Your task to perform on an android device: create a new album in the google photos Image 0: 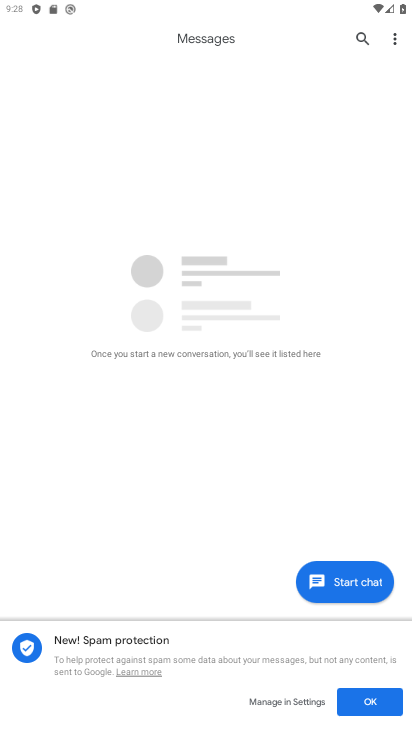
Step 0: press home button
Your task to perform on an android device: create a new album in the google photos Image 1: 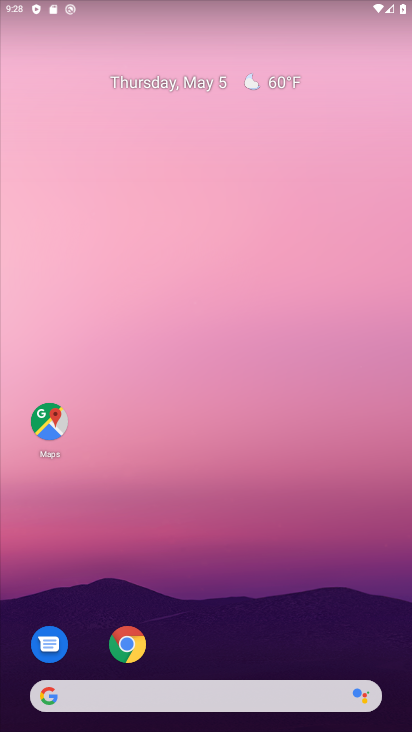
Step 1: drag from (363, 640) to (363, 68)
Your task to perform on an android device: create a new album in the google photos Image 2: 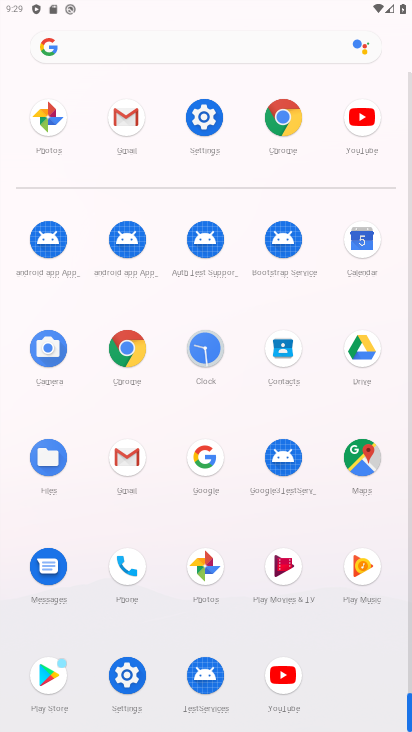
Step 2: click (198, 557)
Your task to perform on an android device: create a new album in the google photos Image 3: 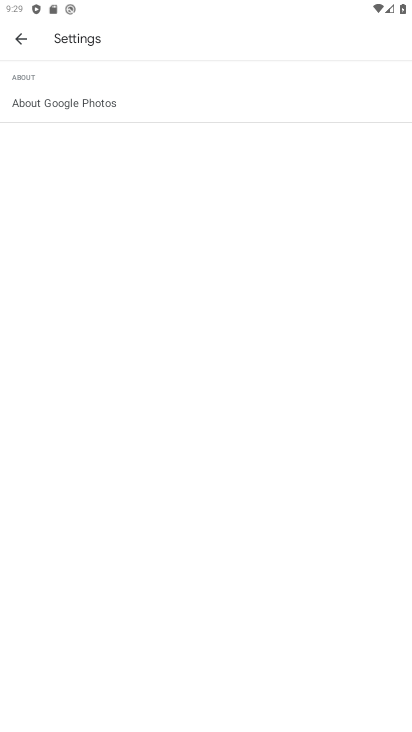
Step 3: click (17, 41)
Your task to perform on an android device: create a new album in the google photos Image 4: 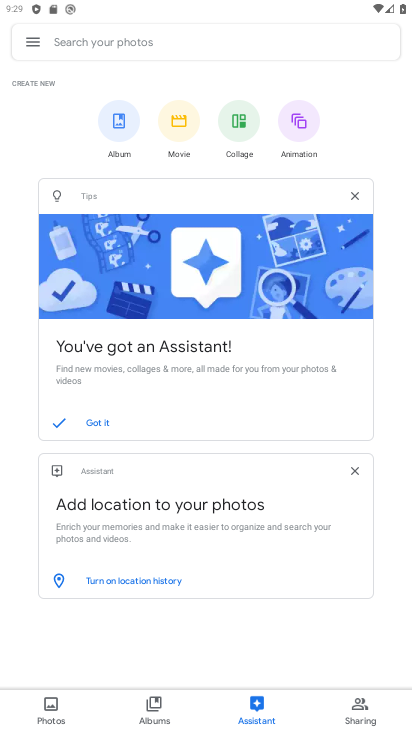
Step 4: click (158, 713)
Your task to perform on an android device: create a new album in the google photos Image 5: 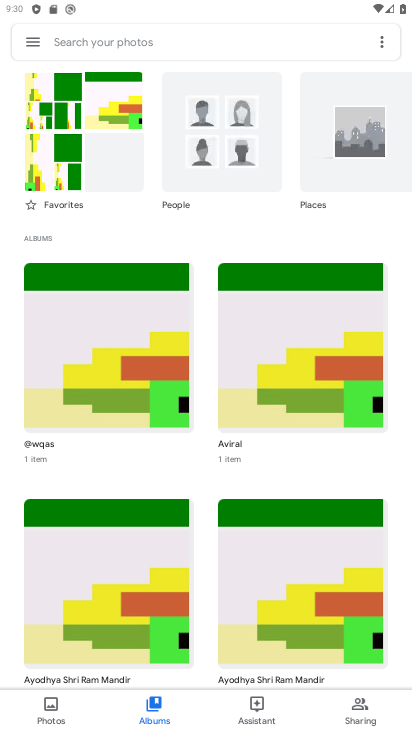
Step 5: task complete